Your task to perform on an android device: change the clock display to analog Image 0: 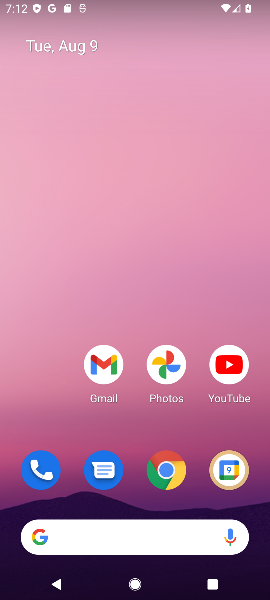
Step 0: drag from (105, 582) to (236, 0)
Your task to perform on an android device: change the clock display to analog Image 1: 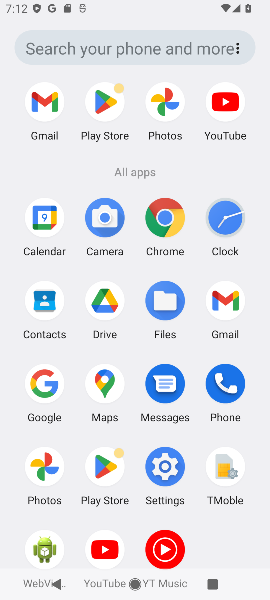
Step 1: click (226, 226)
Your task to perform on an android device: change the clock display to analog Image 2: 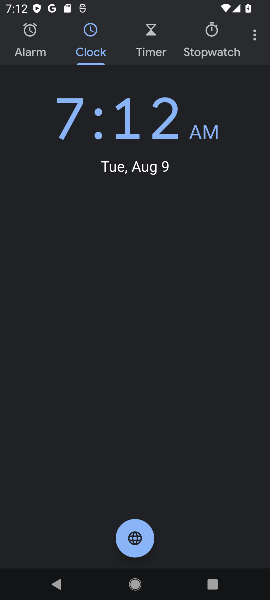
Step 2: click (257, 32)
Your task to perform on an android device: change the clock display to analog Image 3: 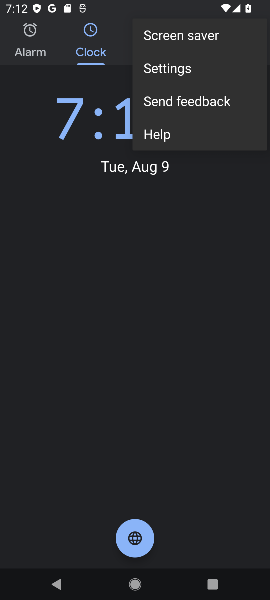
Step 3: click (220, 64)
Your task to perform on an android device: change the clock display to analog Image 4: 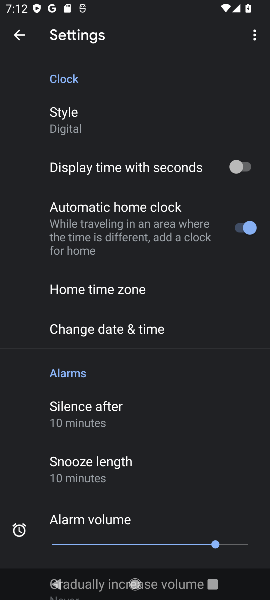
Step 4: click (61, 126)
Your task to perform on an android device: change the clock display to analog Image 5: 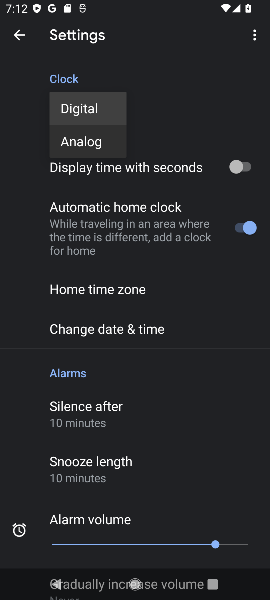
Step 5: click (92, 145)
Your task to perform on an android device: change the clock display to analog Image 6: 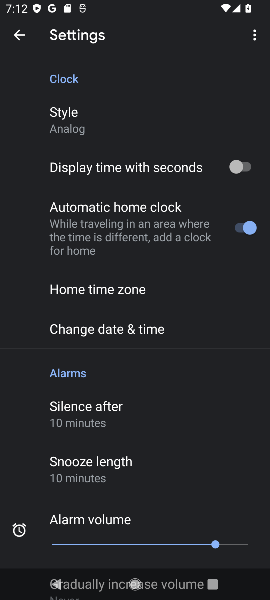
Step 6: task complete